Your task to perform on an android device: turn on javascript in the chrome app Image 0: 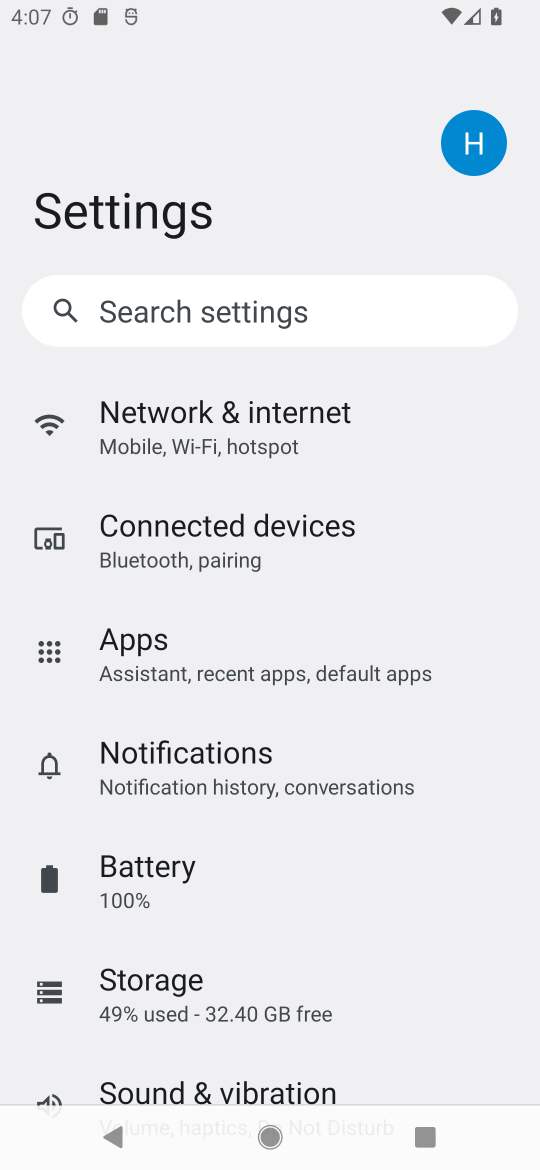
Step 0: press home button
Your task to perform on an android device: turn on javascript in the chrome app Image 1: 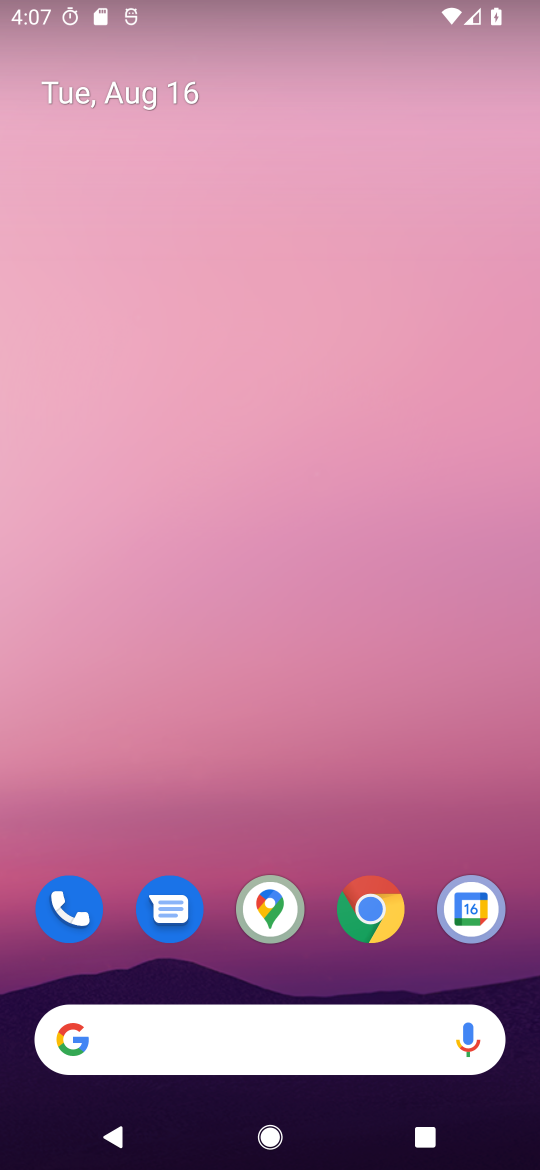
Step 1: click (362, 907)
Your task to perform on an android device: turn on javascript in the chrome app Image 2: 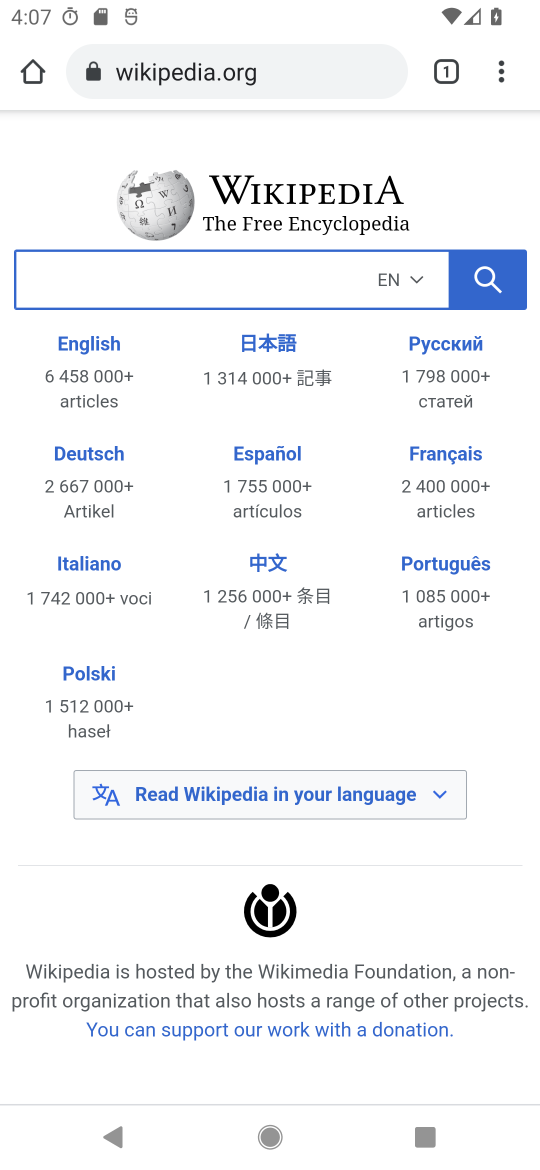
Step 2: click (212, 73)
Your task to perform on an android device: turn on javascript in the chrome app Image 3: 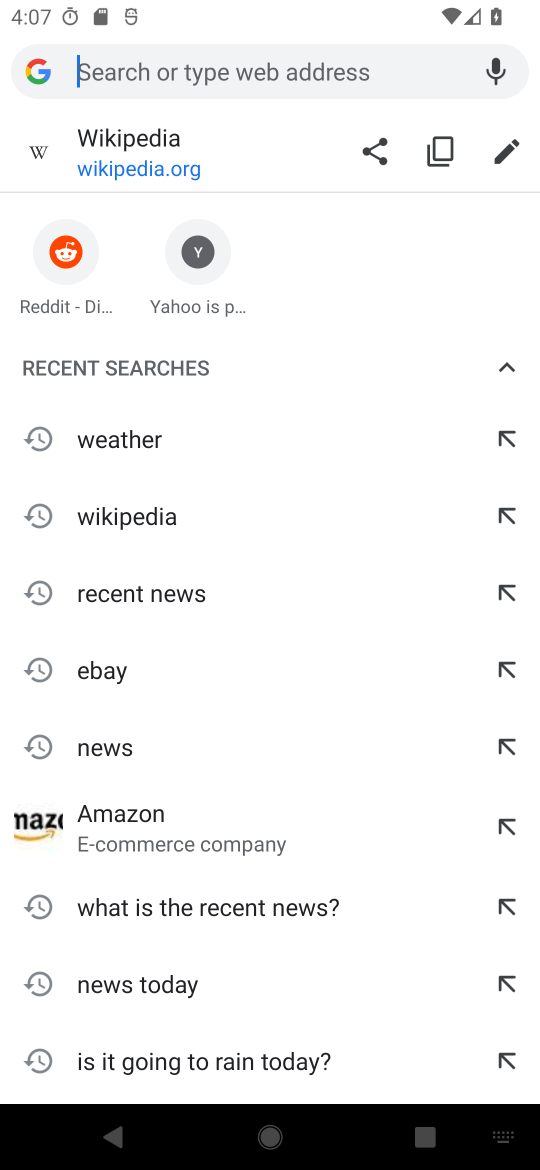
Step 3: press back button
Your task to perform on an android device: turn on javascript in the chrome app Image 4: 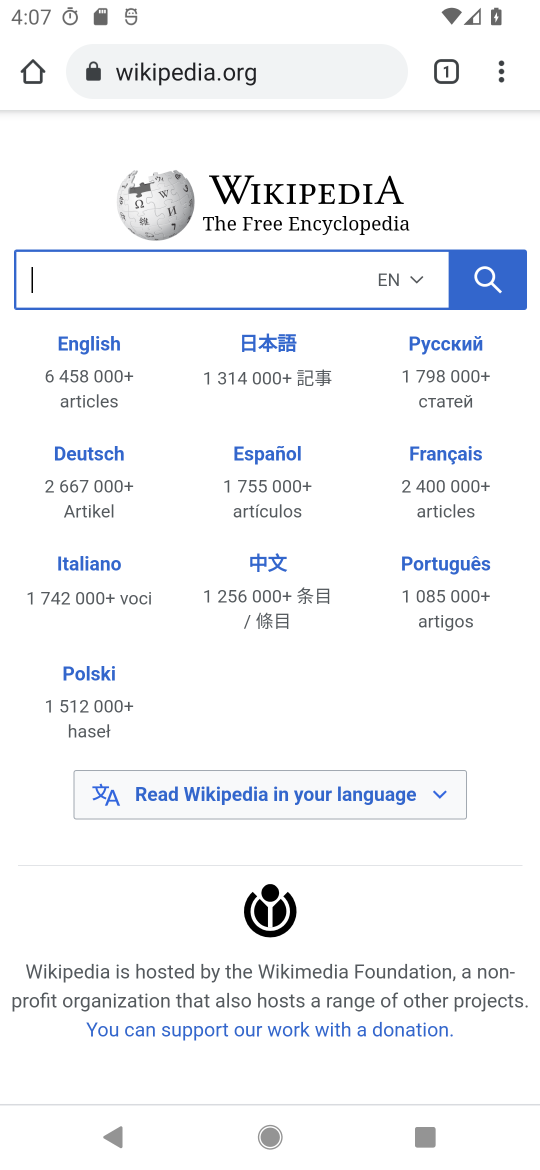
Step 4: click (504, 71)
Your task to perform on an android device: turn on javascript in the chrome app Image 5: 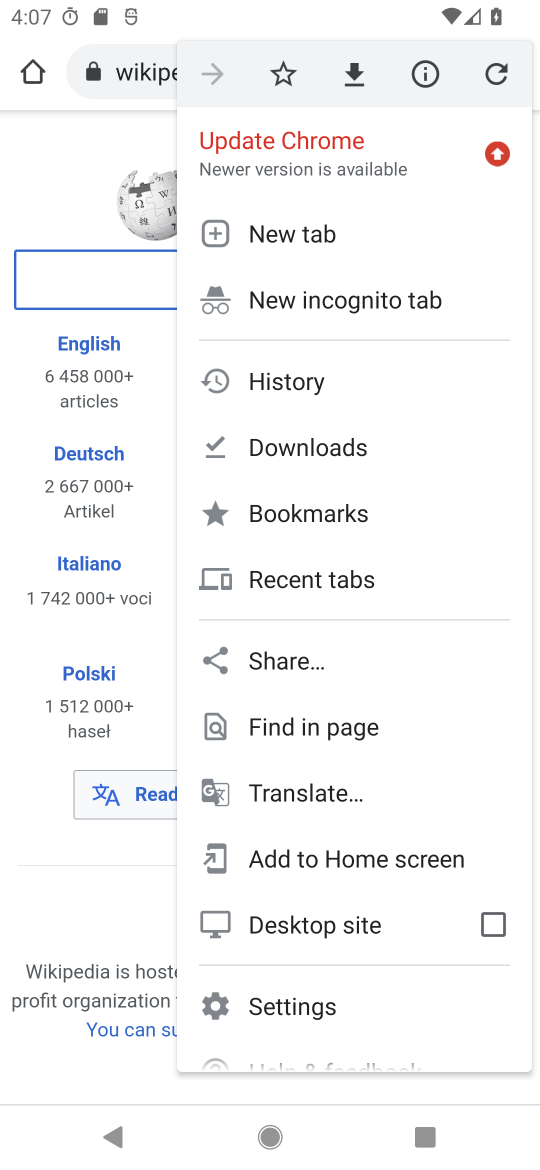
Step 5: click (310, 1010)
Your task to perform on an android device: turn on javascript in the chrome app Image 6: 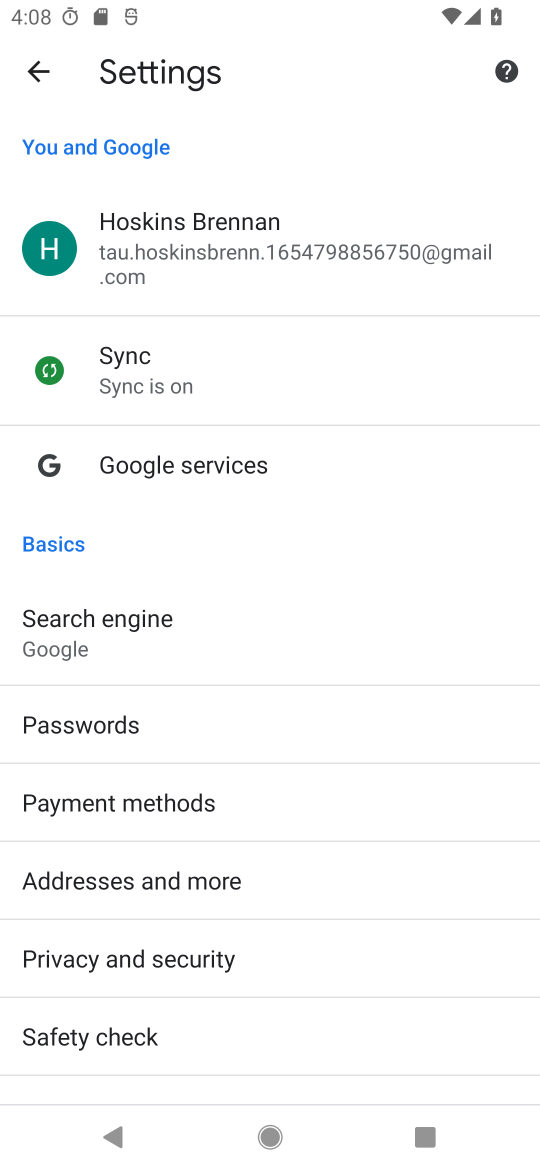
Step 6: drag from (145, 775) to (163, 567)
Your task to perform on an android device: turn on javascript in the chrome app Image 7: 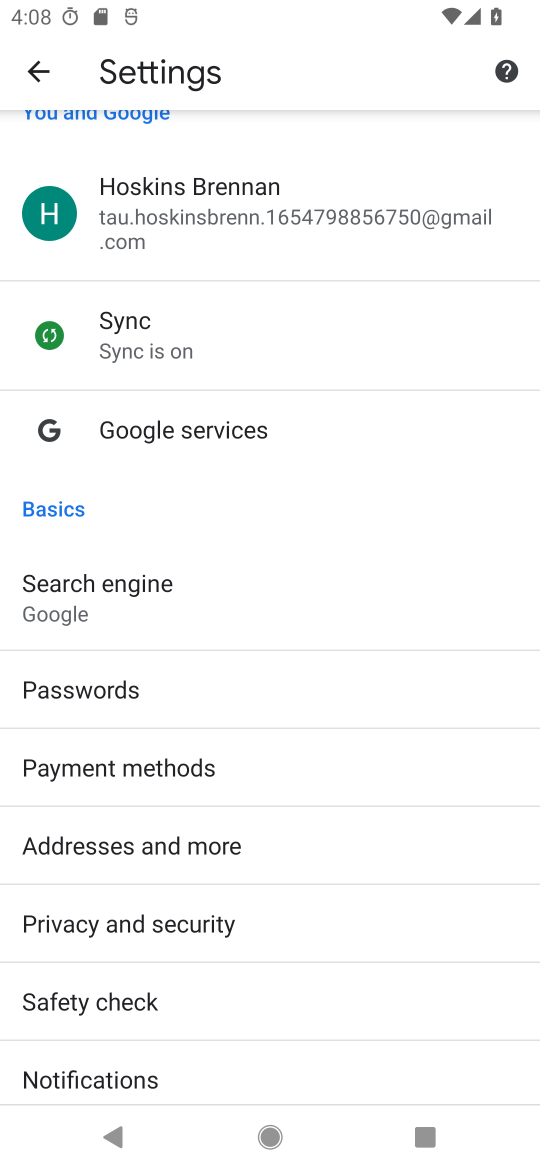
Step 7: drag from (142, 938) to (182, 684)
Your task to perform on an android device: turn on javascript in the chrome app Image 8: 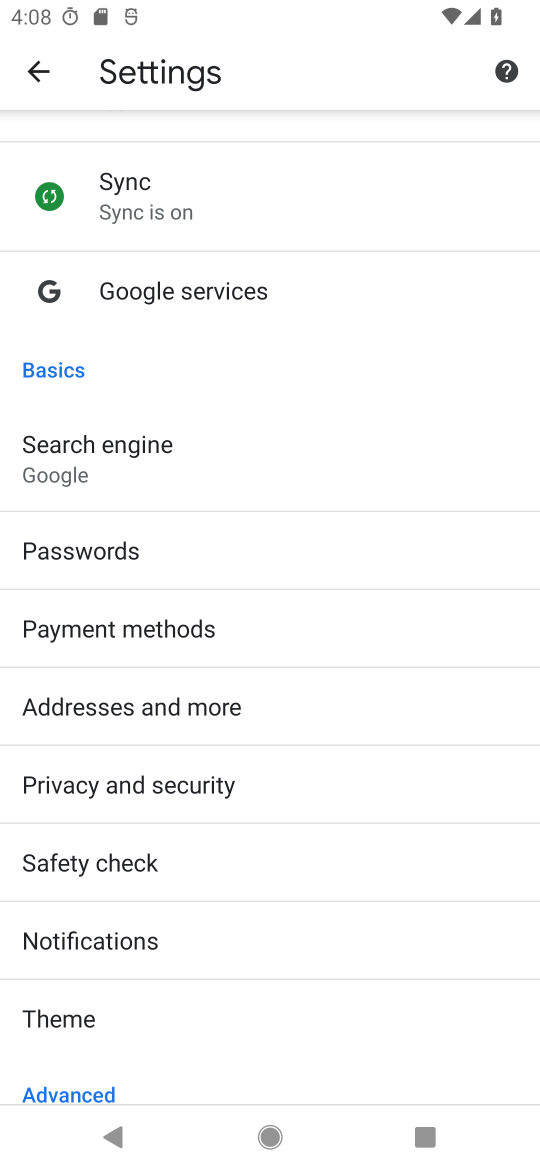
Step 8: drag from (154, 1026) to (221, 463)
Your task to perform on an android device: turn on javascript in the chrome app Image 9: 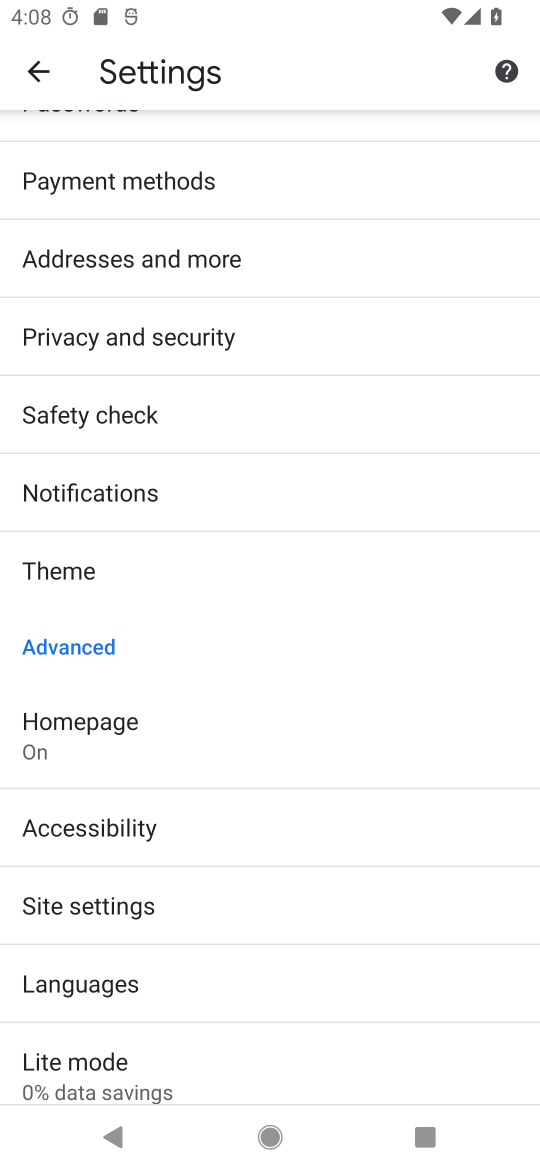
Step 9: click (120, 904)
Your task to perform on an android device: turn on javascript in the chrome app Image 10: 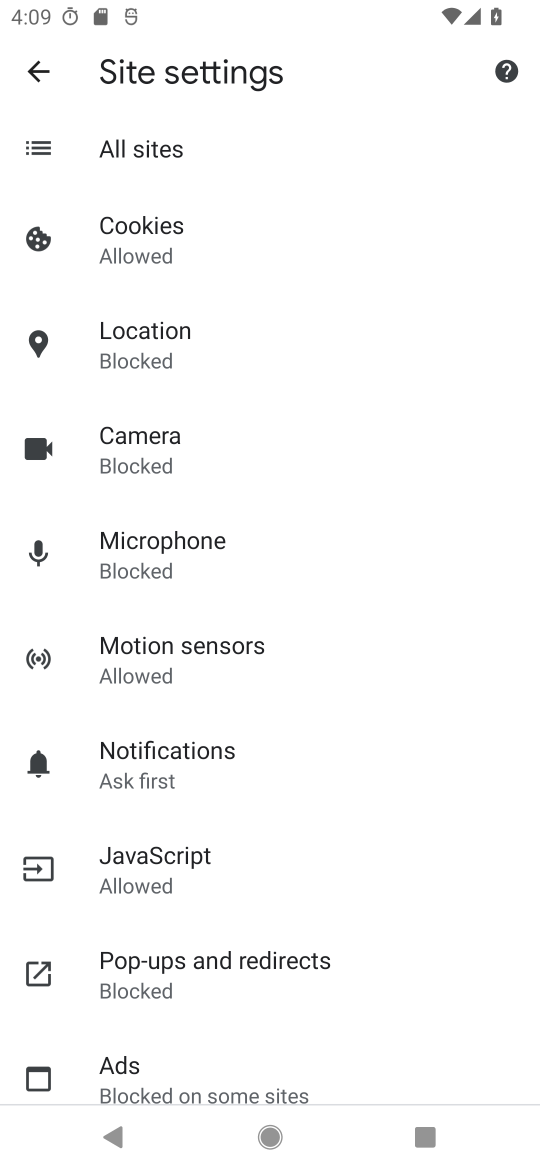
Step 10: click (131, 875)
Your task to perform on an android device: turn on javascript in the chrome app Image 11: 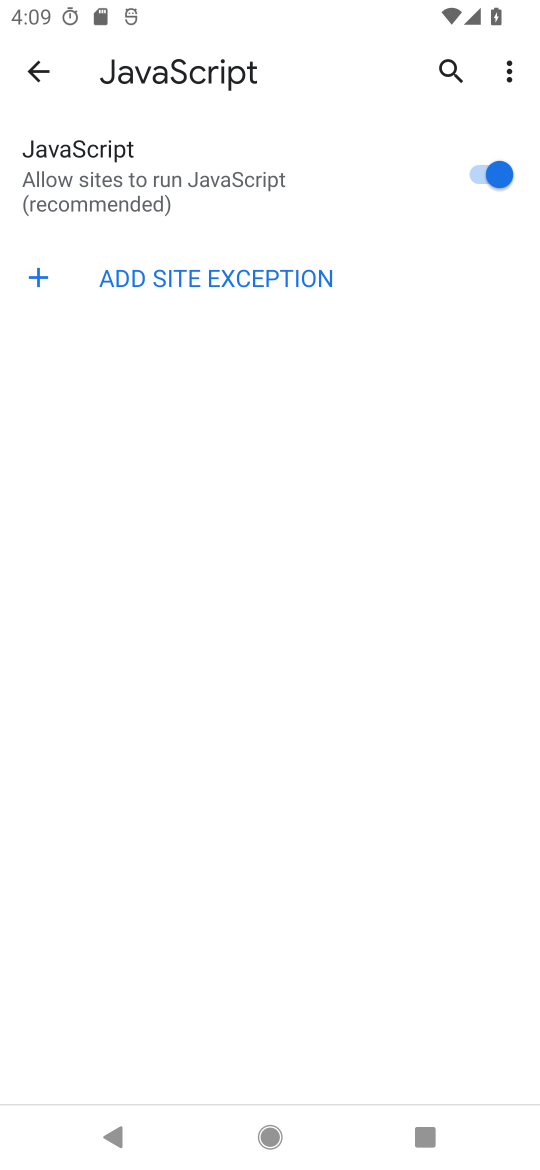
Step 11: task complete